Your task to perform on an android device: Show the shopping cart on newegg. Image 0: 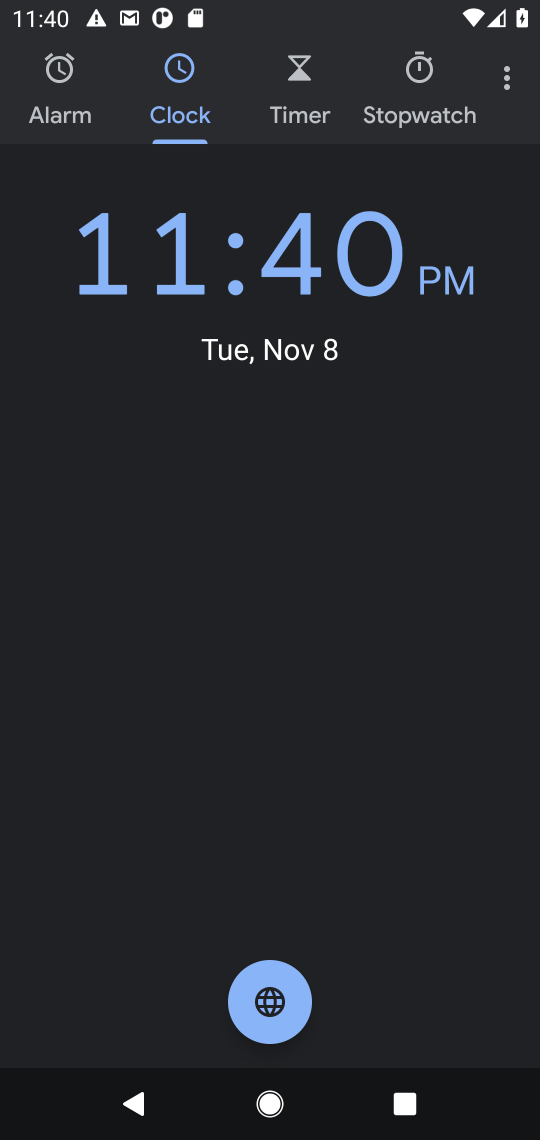
Step 0: press home button
Your task to perform on an android device: Show the shopping cart on newegg. Image 1: 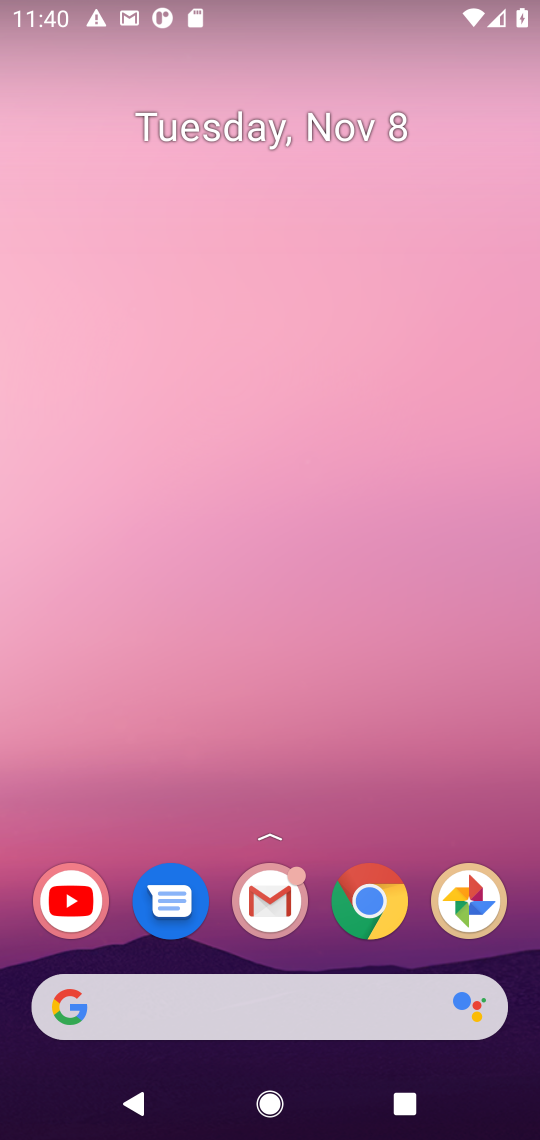
Step 1: click (380, 905)
Your task to perform on an android device: Show the shopping cart on newegg. Image 2: 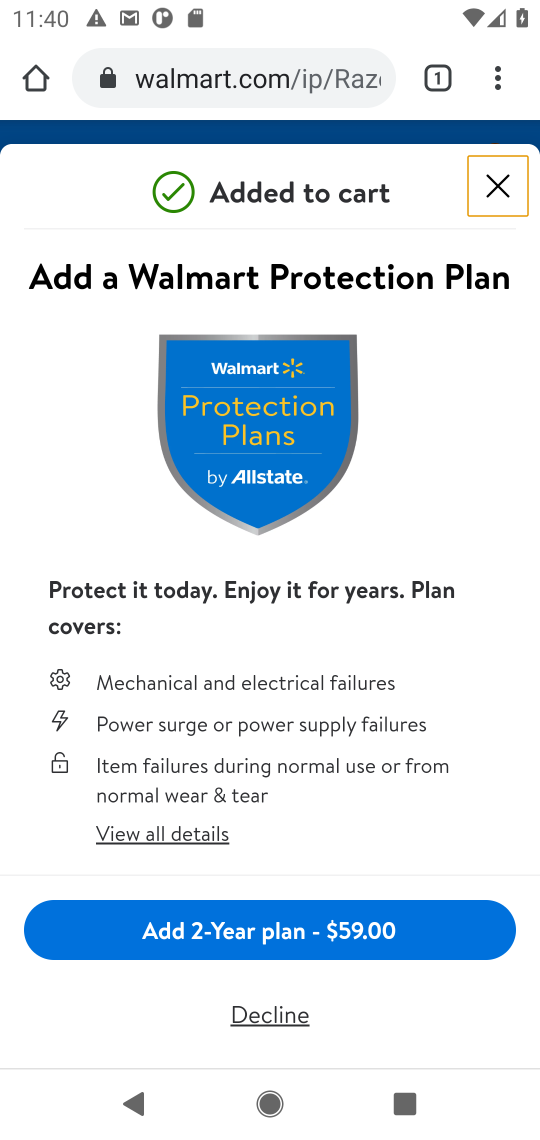
Step 2: click (176, 64)
Your task to perform on an android device: Show the shopping cart on newegg. Image 3: 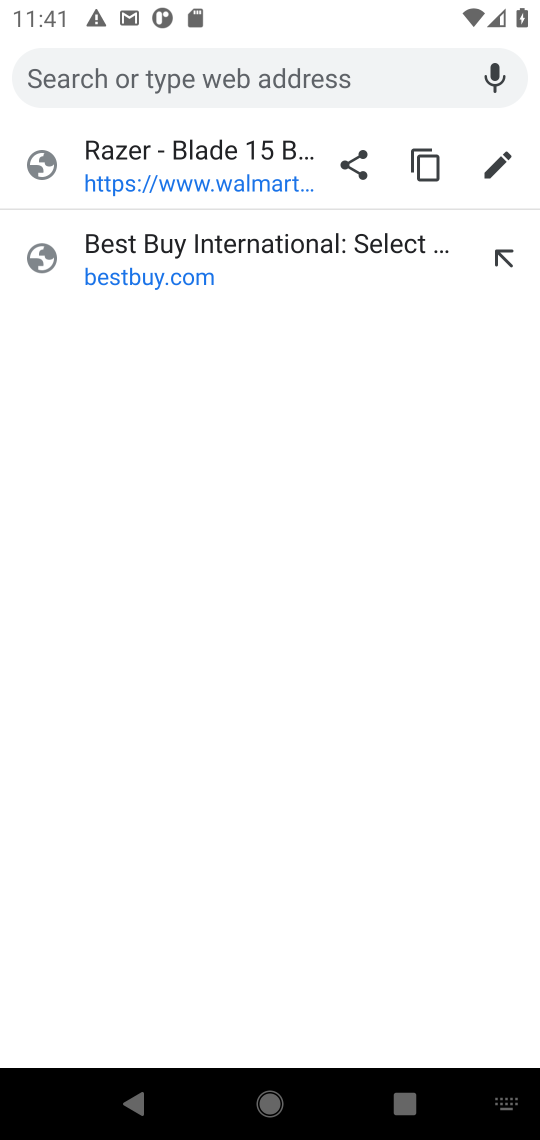
Step 3: type "newegg"
Your task to perform on an android device: Show the shopping cart on newegg. Image 4: 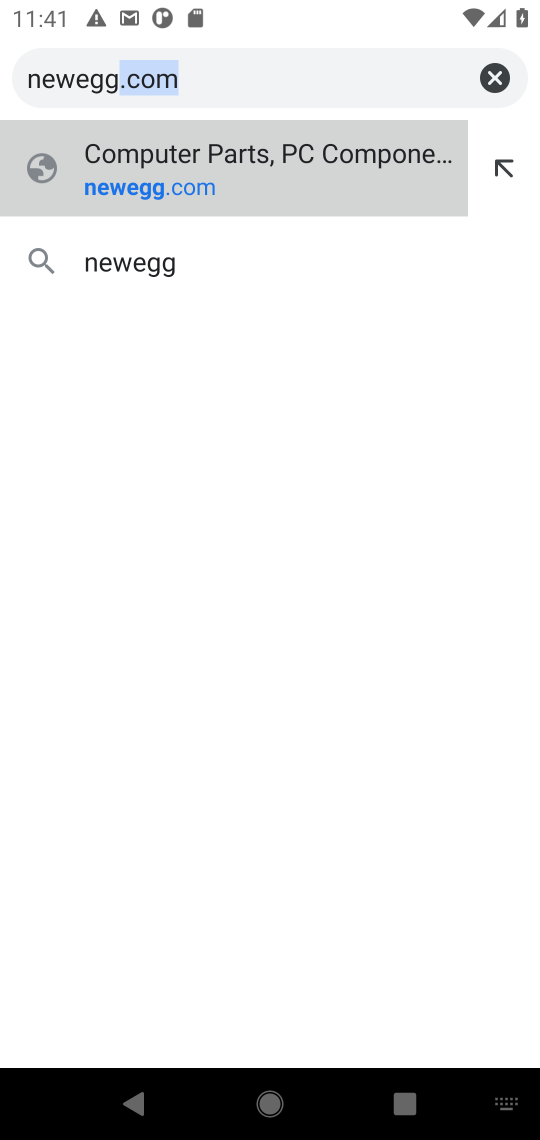
Step 4: click (394, 81)
Your task to perform on an android device: Show the shopping cart on newegg. Image 5: 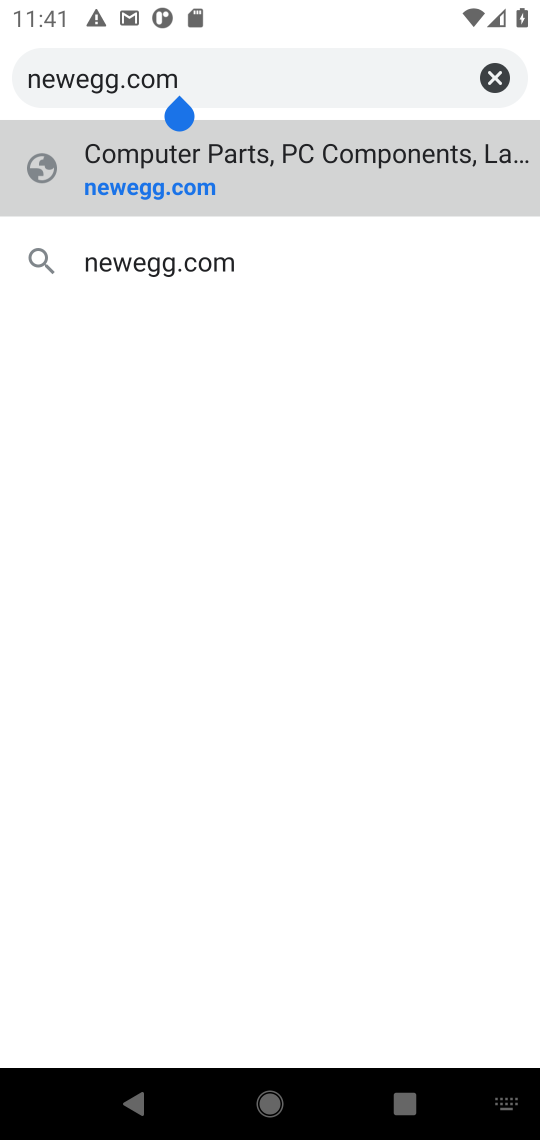
Step 5: click (199, 259)
Your task to perform on an android device: Show the shopping cart on newegg. Image 6: 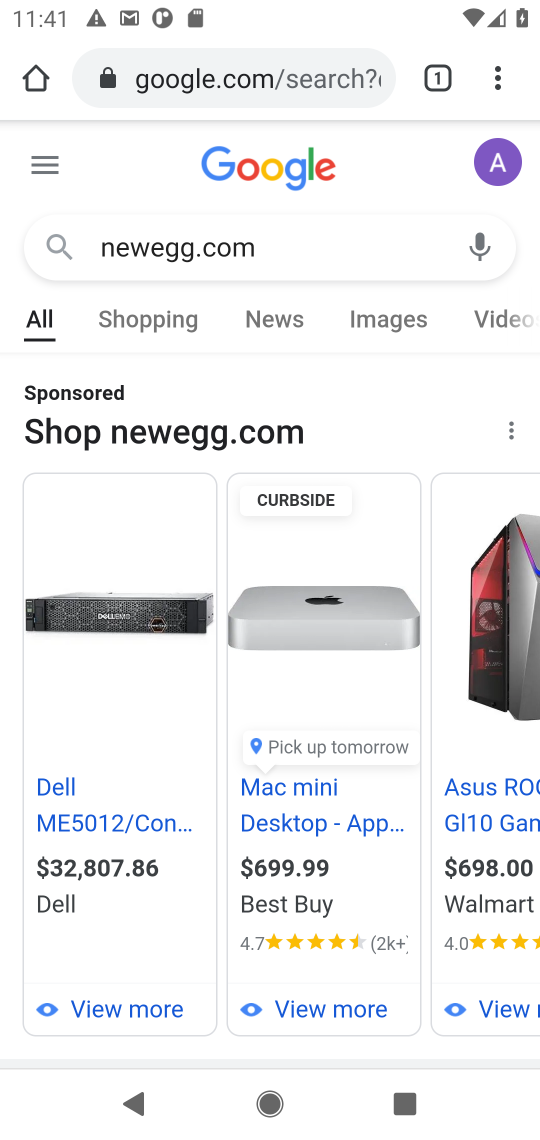
Step 6: drag from (263, 854) to (314, 351)
Your task to perform on an android device: Show the shopping cart on newegg. Image 7: 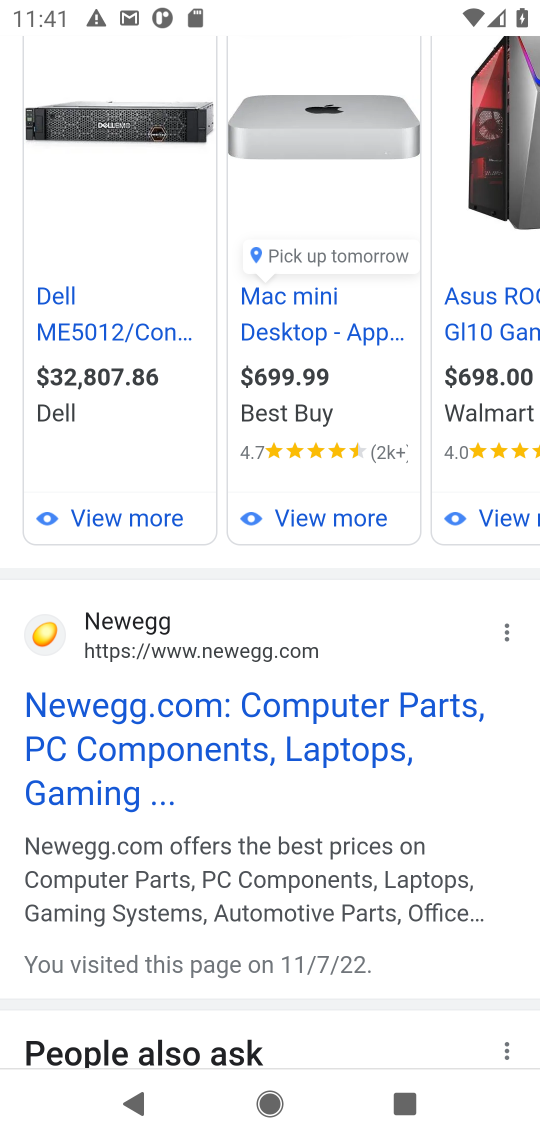
Step 7: click (263, 653)
Your task to perform on an android device: Show the shopping cart on newegg. Image 8: 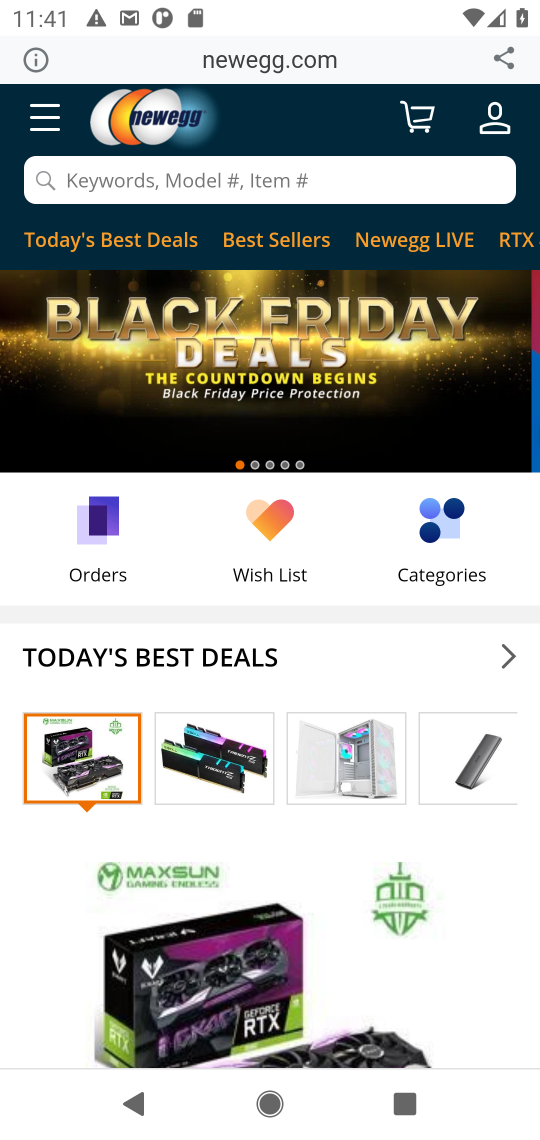
Step 8: drag from (414, 890) to (462, 359)
Your task to perform on an android device: Show the shopping cart on newegg. Image 9: 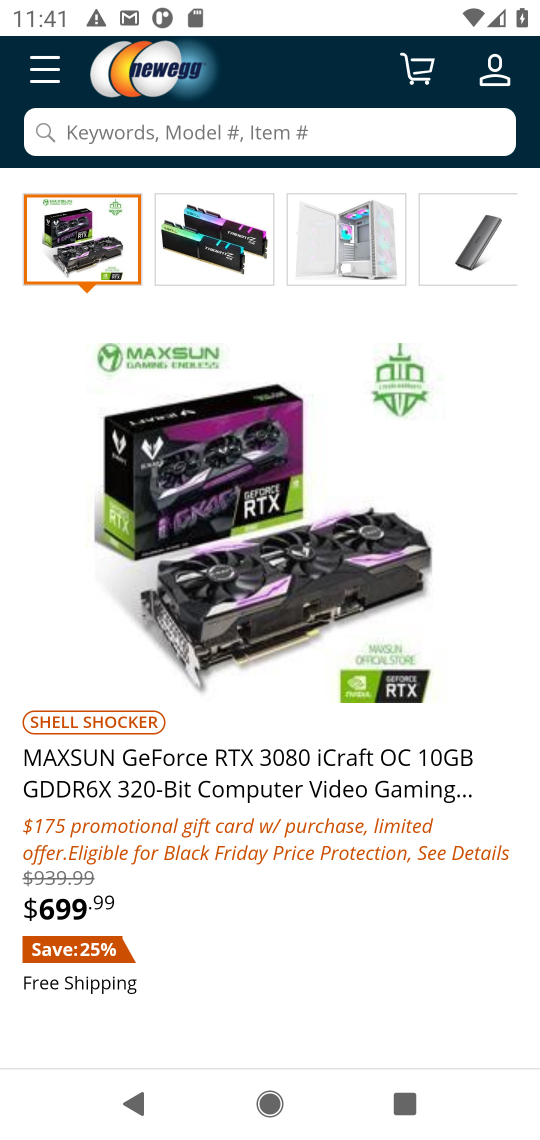
Step 9: drag from (430, 318) to (363, 803)
Your task to perform on an android device: Show the shopping cart on newegg. Image 10: 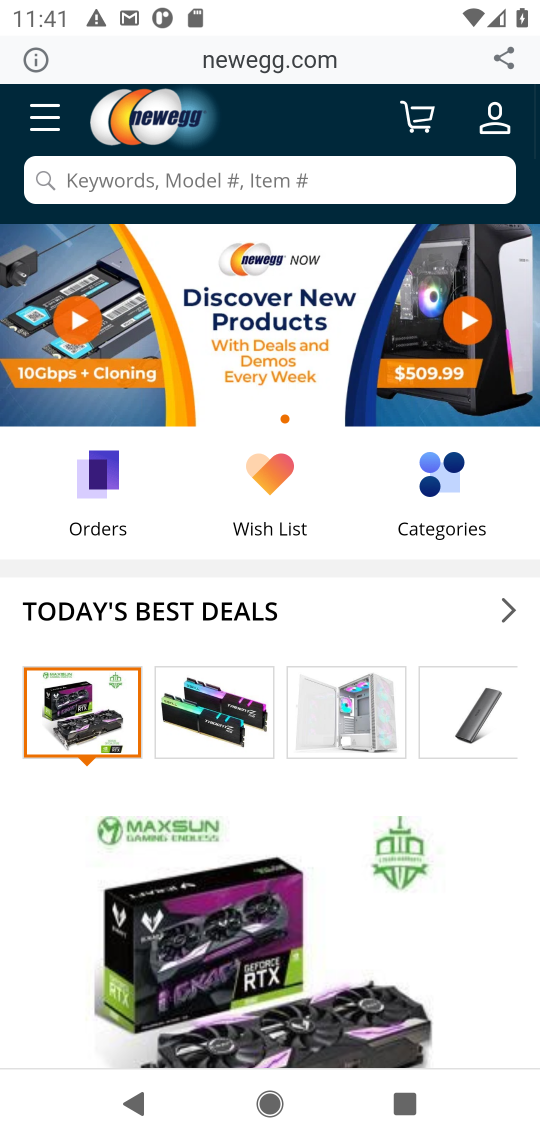
Step 10: click (416, 76)
Your task to perform on an android device: Show the shopping cart on newegg. Image 11: 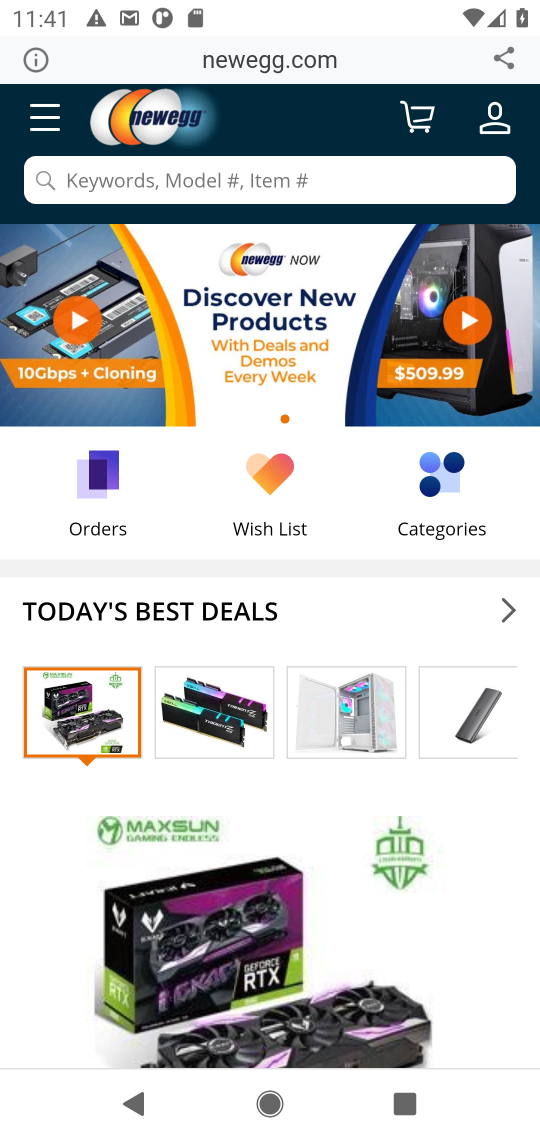
Step 11: click (422, 122)
Your task to perform on an android device: Show the shopping cart on newegg. Image 12: 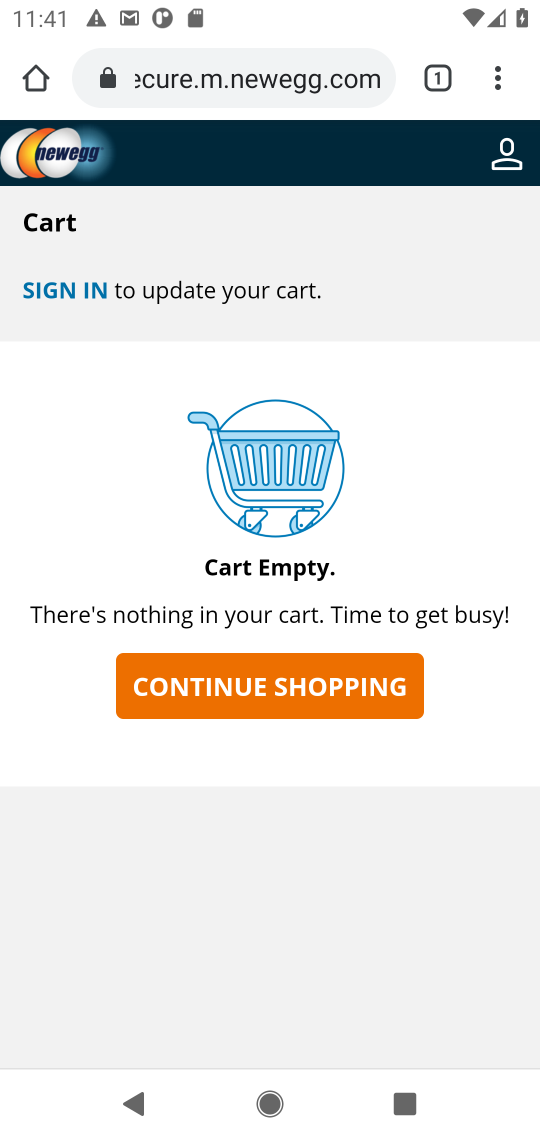
Step 12: task complete